Your task to perform on an android device: turn on data saver in the chrome app Image 0: 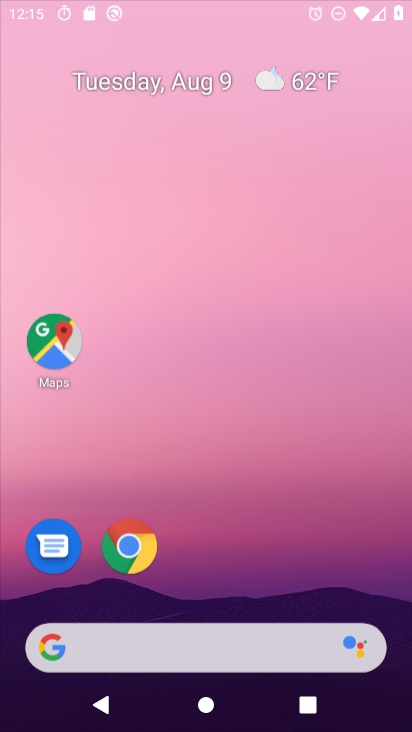
Step 0: press home button
Your task to perform on an android device: turn on data saver in the chrome app Image 1: 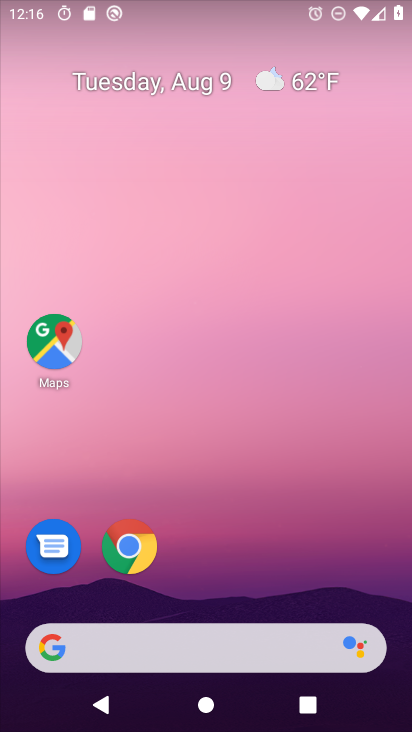
Step 1: drag from (218, 604) to (230, 94)
Your task to perform on an android device: turn on data saver in the chrome app Image 2: 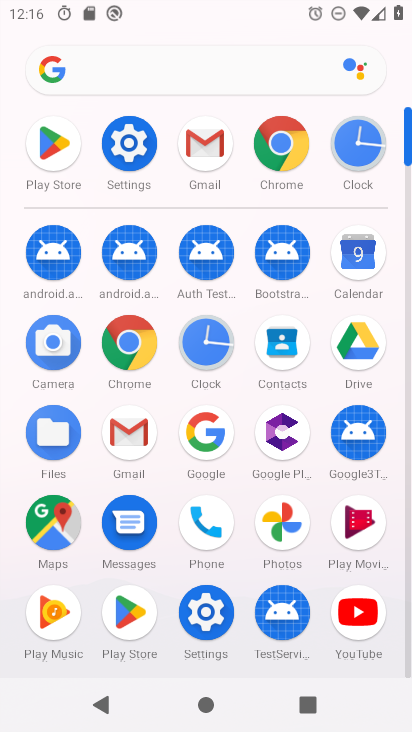
Step 2: click (124, 335)
Your task to perform on an android device: turn on data saver in the chrome app Image 3: 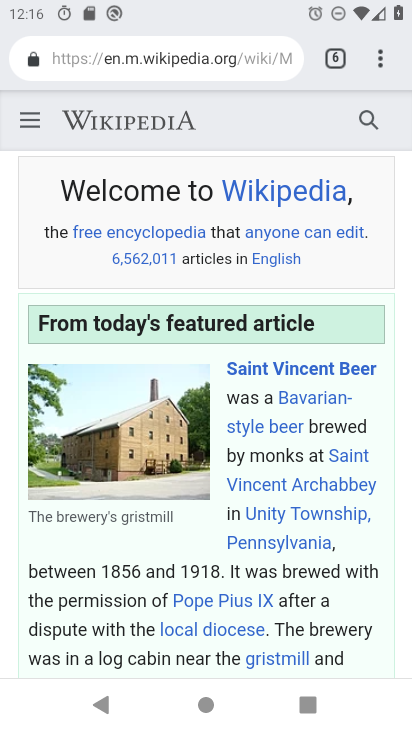
Step 3: click (380, 54)
Your task to perform on an android device: turn on data saver in the chrome app Image 4: 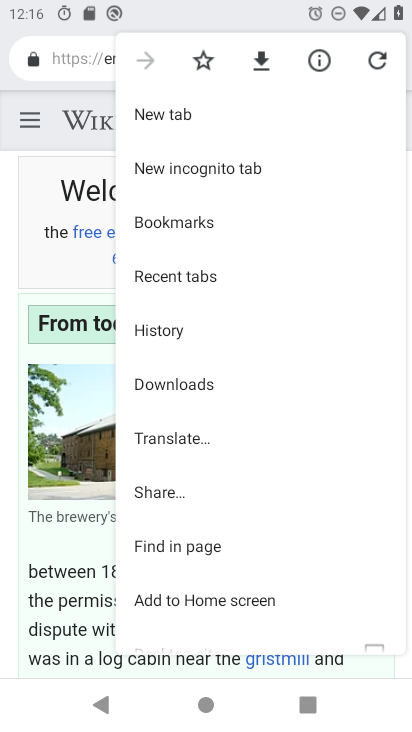
Step 4: drag from (280, 608) to (292, 37)
Your task to perform on an android device: turn on data saver in the chrome app Image 5: 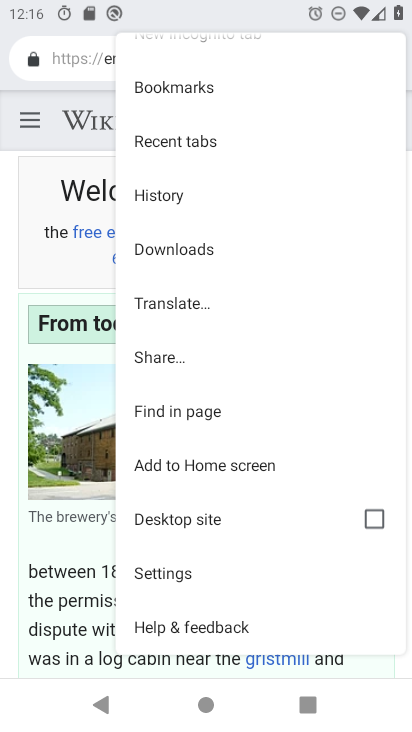
Step 5: click (201, 567)
Your task to perform on an android device: turn on data saver in the chrome app Image 6: 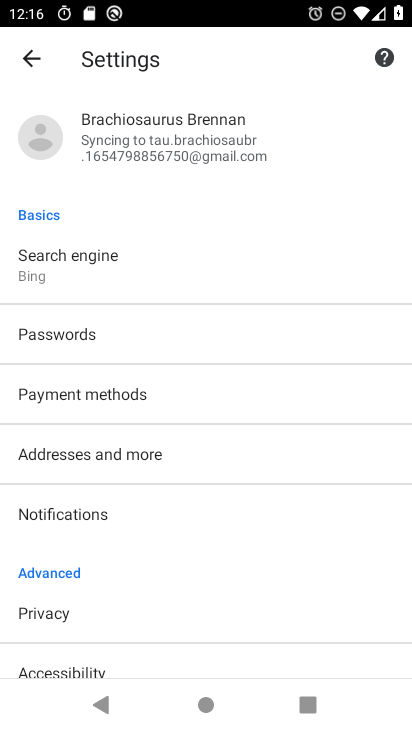
Step 6: drag from (191, 640) to (246, 106)
Your task to perform on an android device: turn on data saver in the chrome app Image 7: 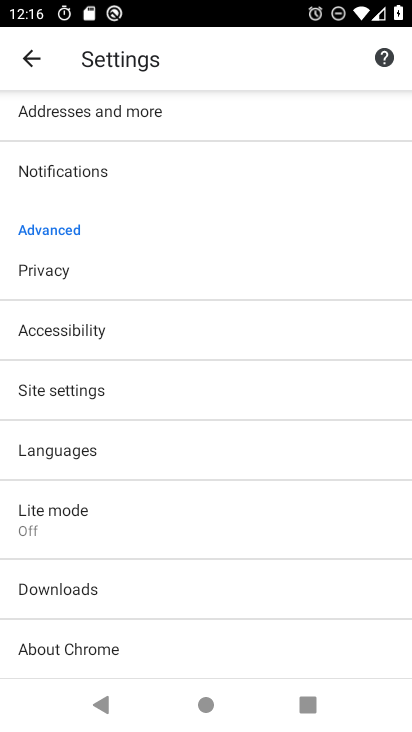
Step 7: click (65, 531)
Your task to perform on an android device: turn on data saver in the chrome app Image 8: 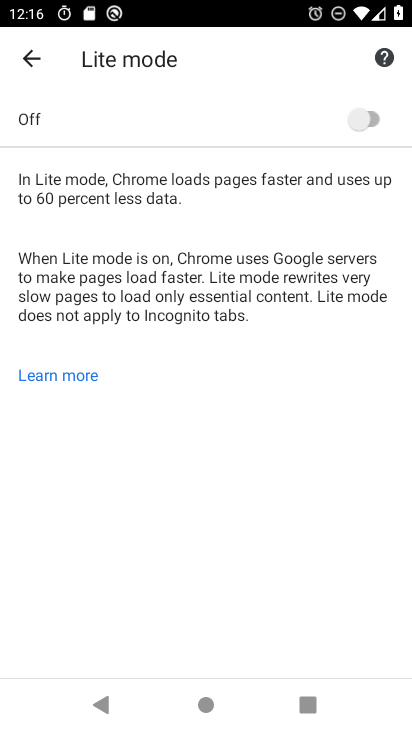
Step 8: click (376, 122)
Your task to perform on an android device: turn on data saver in the chrome app Image 9: 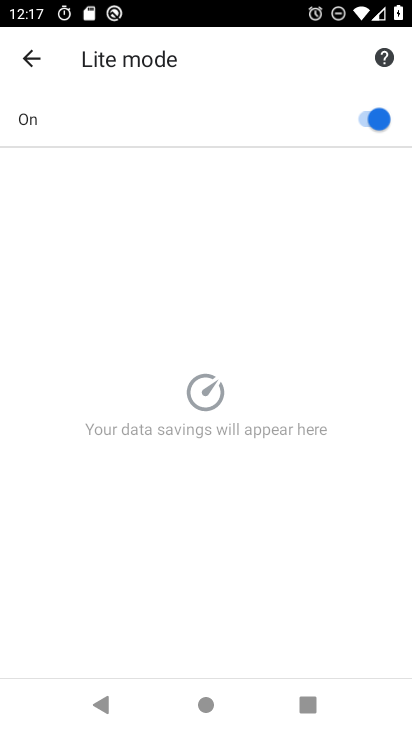
Step 9: task complete